Your task to perform on an android device: check google app version Image 0: 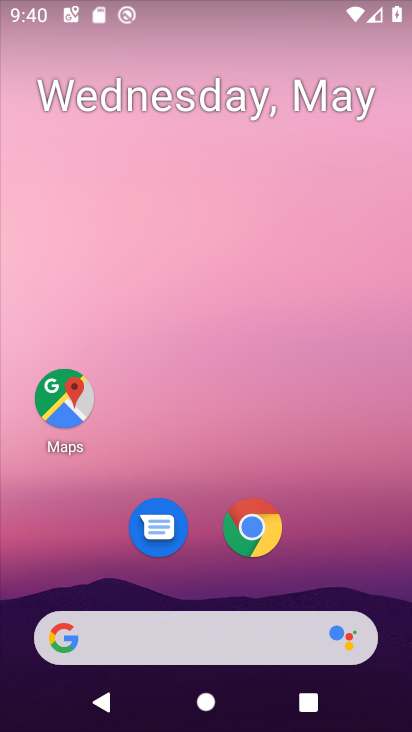
Step 0: drag from (215, 556) to (269, 71)
Your task to perform on an android device: check google app version Image 1: 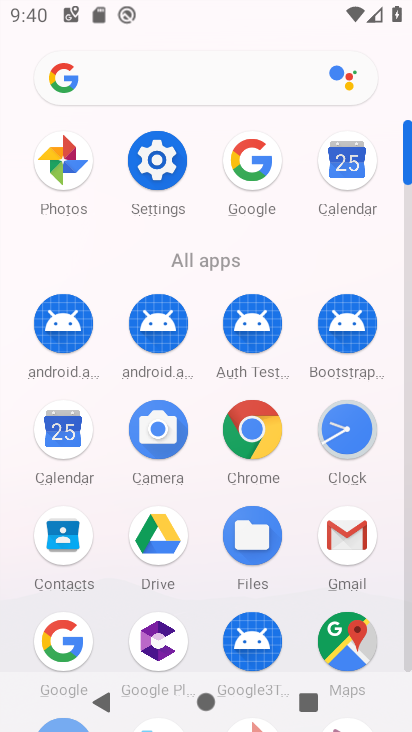
Step 1: click (264, 164)
Your task to perform on an android device: check google app version Image 2: 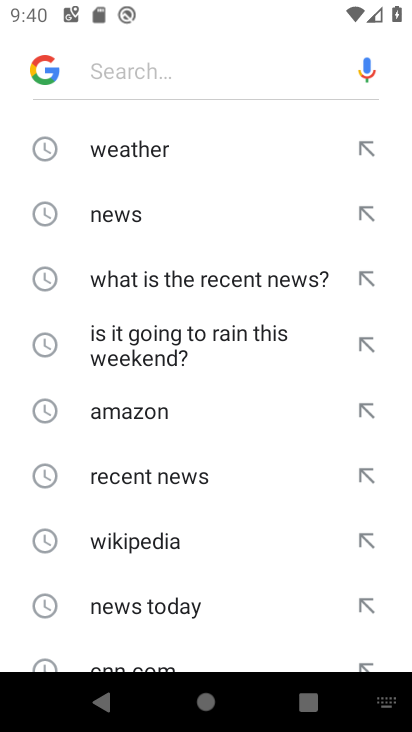
Step 2: press back button
Your task to perform on an android device: check google app version Image 3: 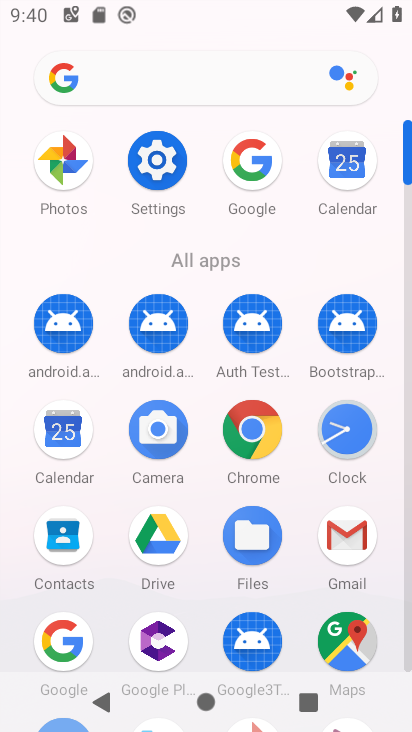
Step 3: click (264, 160)
Your task to perform on an android device: check google app version Image 4: 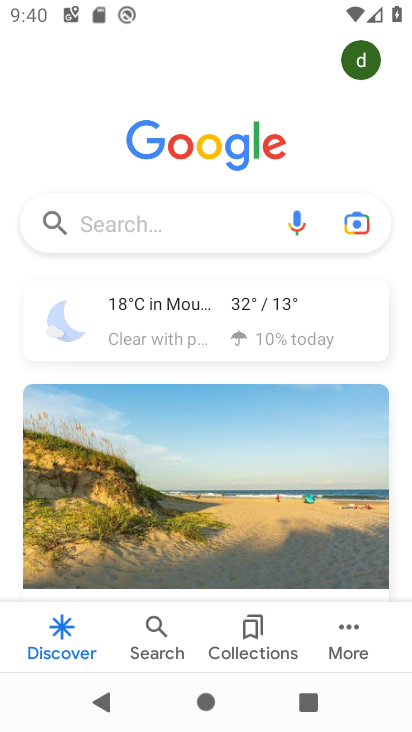
Step 4: click (344, 641)
Your task to perform on an android device: check google app version Image 5: 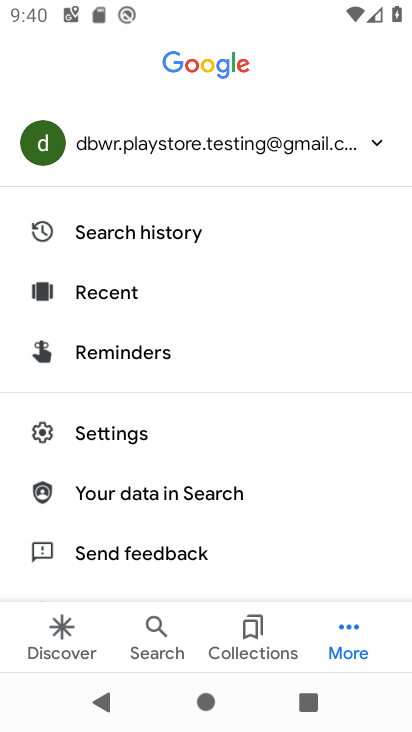
Step 5: drag from (255, 458) to (267, 257)
Your task to perform on an android device: check google app version Image 6: 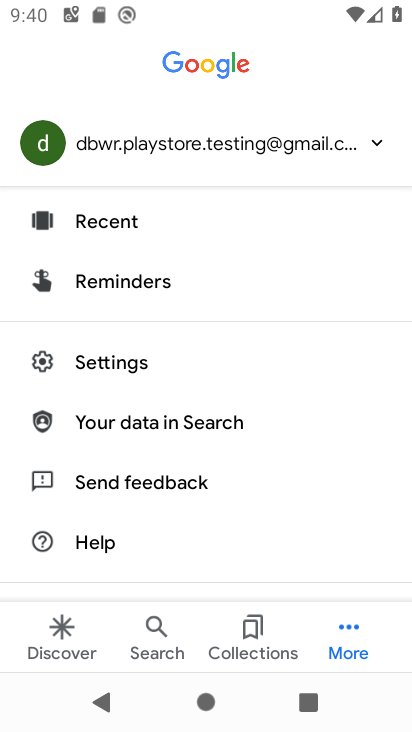
Step 6: click (126, 370)
Your task to perform on an android device: check google app version Image 7: 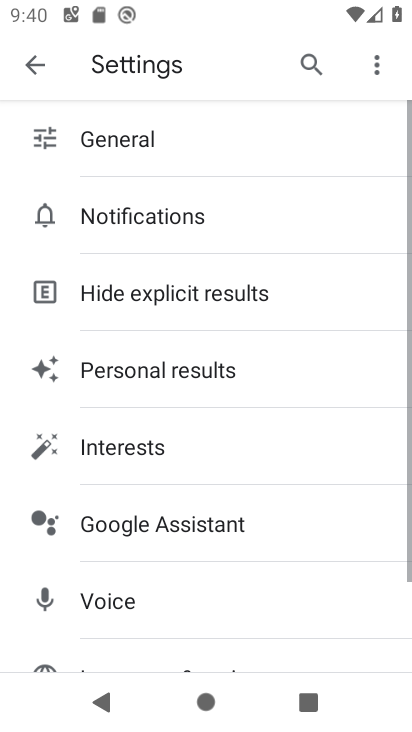
Step 7: drag from (248, 518) to (250, 102)
Your task to perform on an android device: check google app version Image 8: 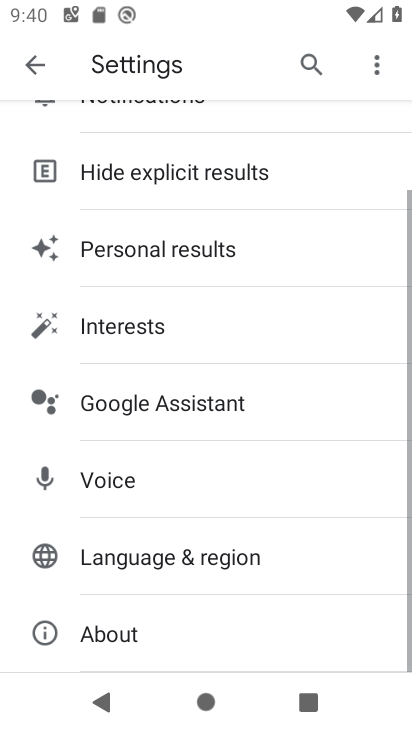
Step 8: click (129, 627)
Your task to perform on an android device: check google app version Image 9: 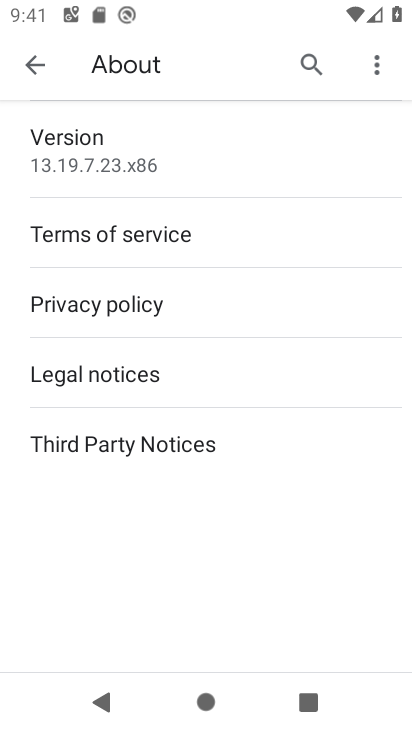
Step 9: task complete